Your task to perform on an android device: turn on priority inbox in the gmail app Image 0: 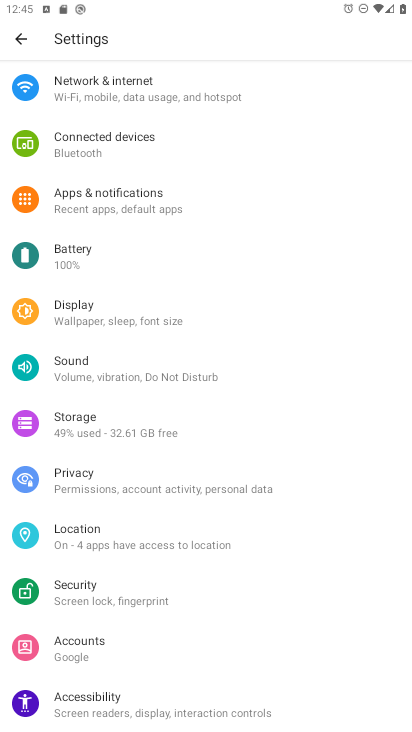
Step 0: press home button
Your task to perform on an android device: turn on priority inbox in the gmail app Image 1: 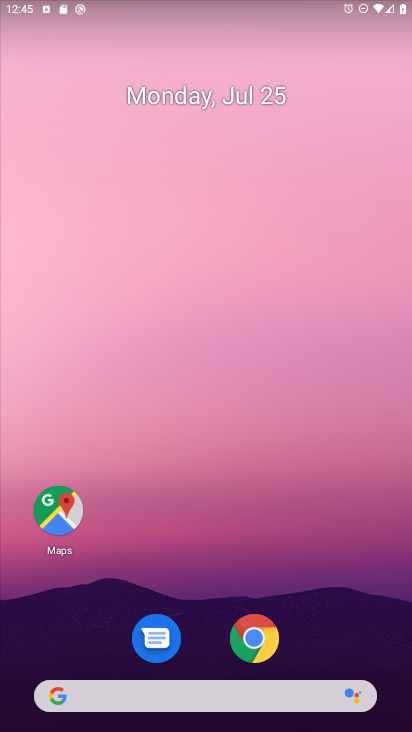
Step 1: drag from (223, 577) to (132, 121)
Your task to perform on an android device: turn on priority inbox in the gmail app Image 2: 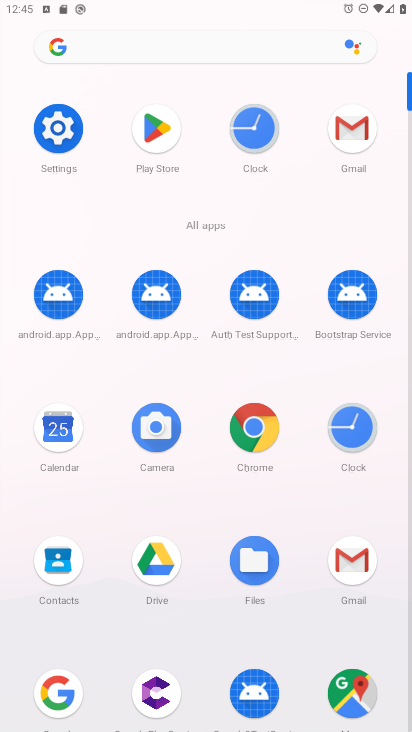
Step 2: click (355, 138)
Your task to perform on an android device: turn on priority inbox in the gmail app Image 3: 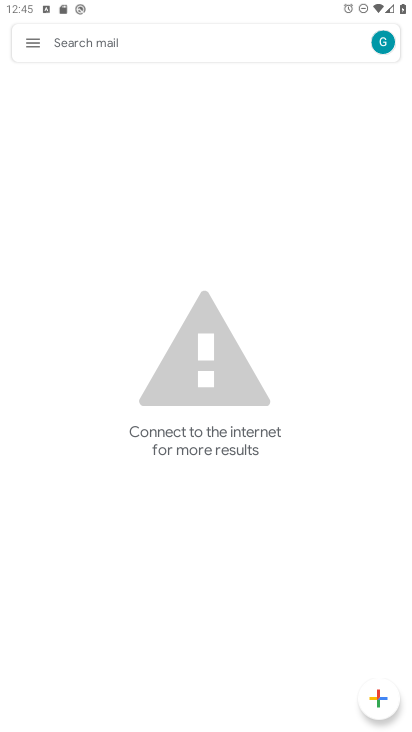
Step 3: click (36, 40)
Your task to perform on an android device: turn on priority inbox in the gmail app Image 4: 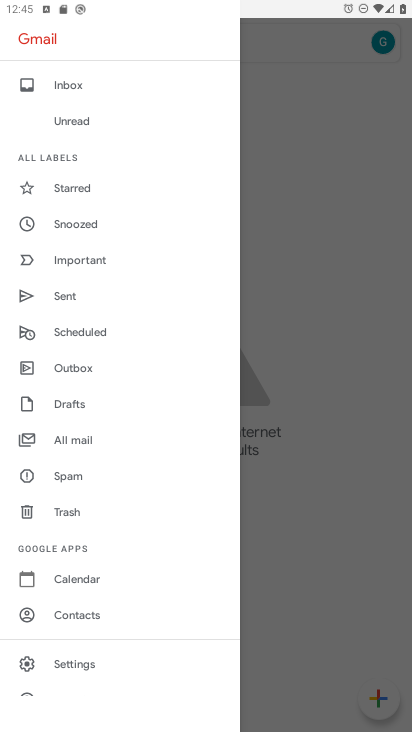
Step 4: click (73, 663)
Your task to perform on an android device: turn on priority inbox in the gmail app Image 5: 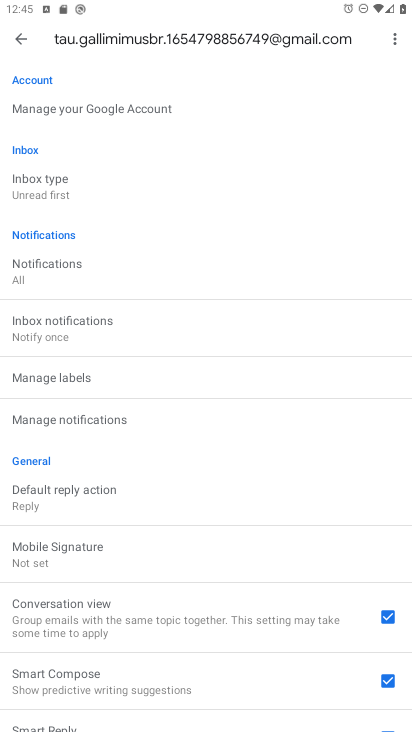
Step 5: click (115, 180)
Your task to perform on an android device: turn on priority inbox in the gmail app Image 6: 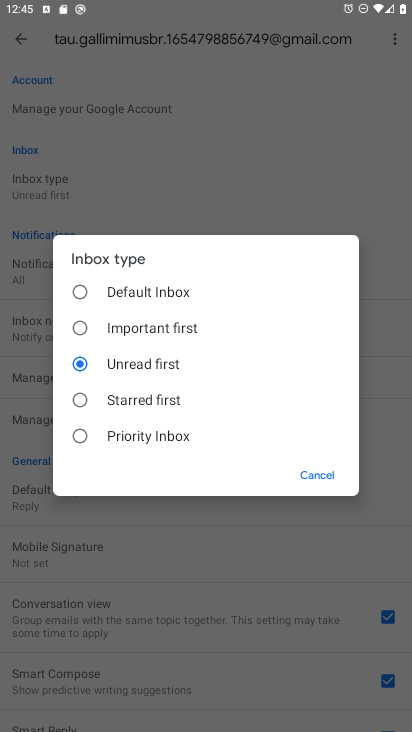
Step 6: click (156, 434)
Your task to perform on an android device: turn on priority inbox in the gmail app Image 7: 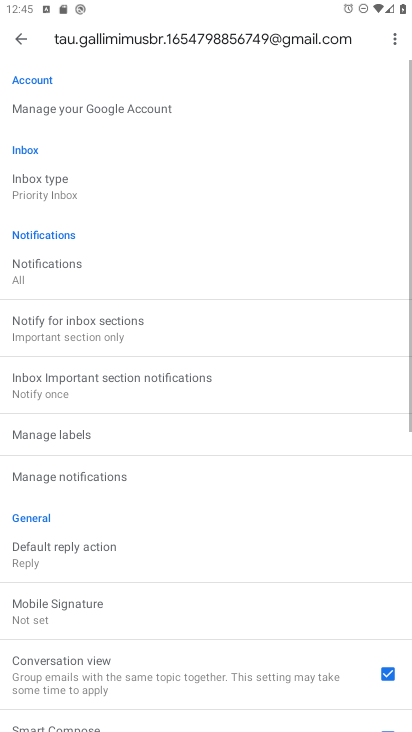
Step 7: task complete